Your task to perform on an android device: change the clock display to analog Image 0: 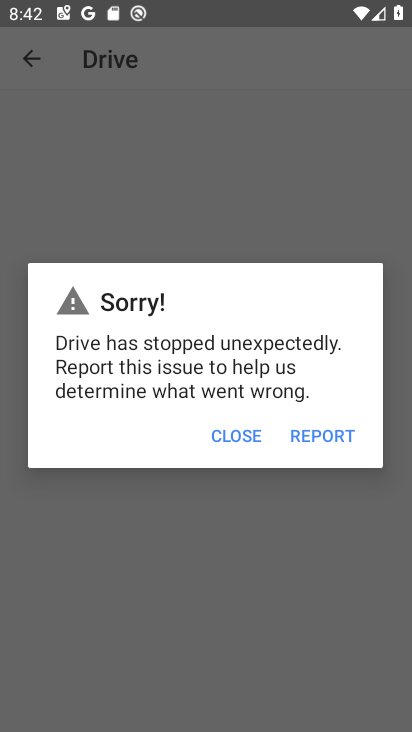
Step 0: click (261, 431)
Your task to perform on an android device: change the clock display to analog Image 1: 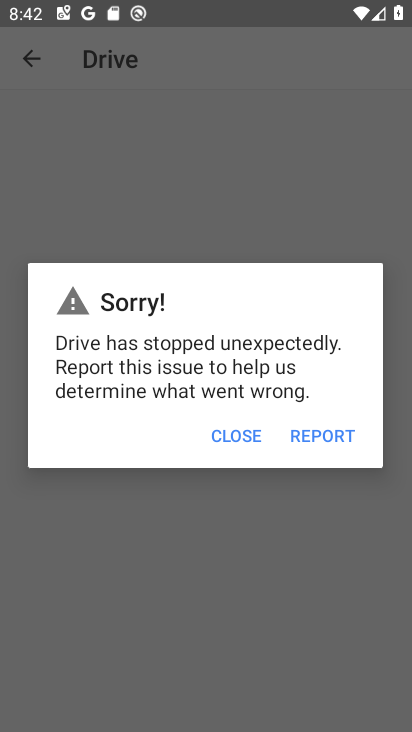
Step 1: click (260, 432)
Your task to perform on an android device: change the clock display to analog Image 2: 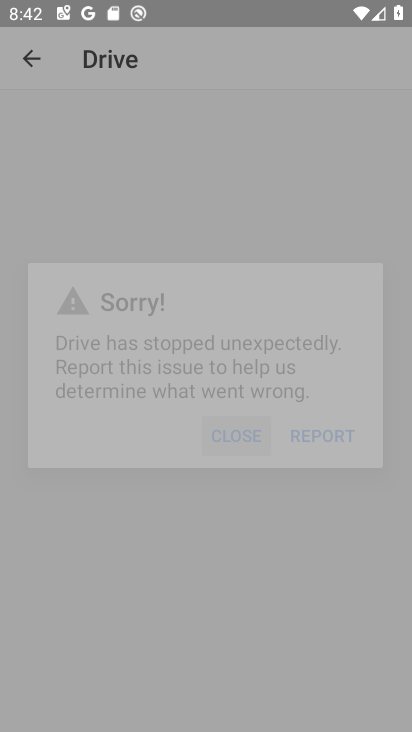
Step 2: click (260, 432)
Your task to perform on an android device: change the clock display to analog Image 3: 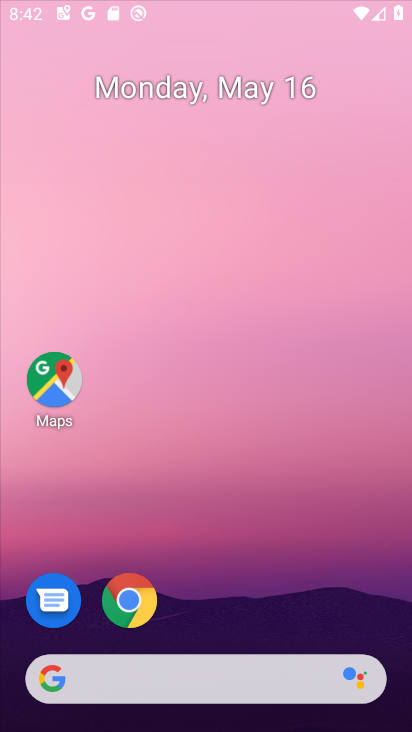
Step 3: click (259, 433)
Your task to perform on an android device: change the clock display to analog Image 4: 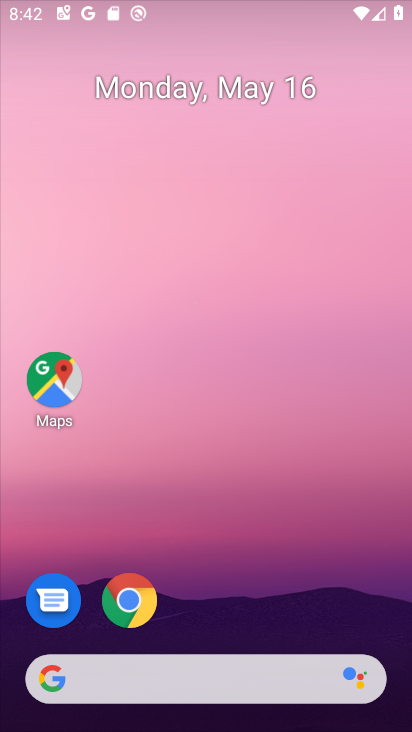
Step 4: drag from (274, 553) to (13, 109)
Your task to perform on an android device: change the clock display to analog Image 5: 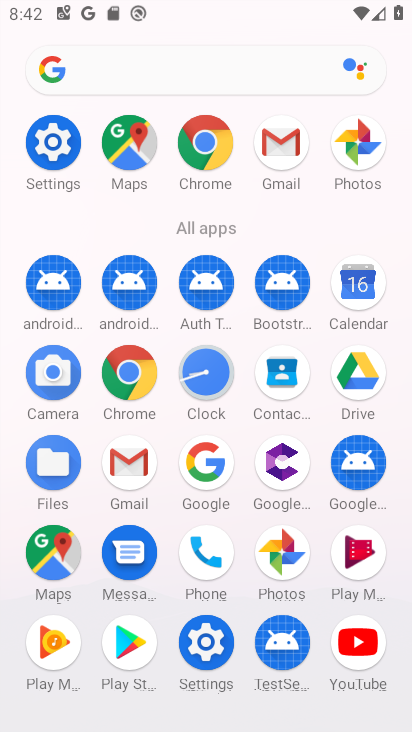
Step 5: click (201, 384)
Your task to perform on an android device: change the clock display to analog Image 6: 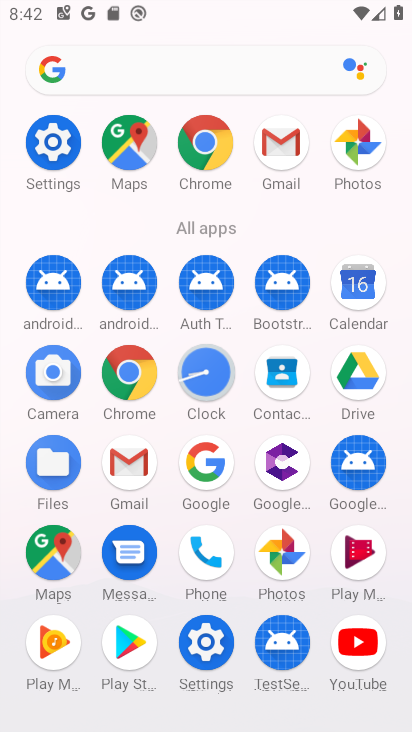
Step 6: click (203, 383)
Your task to perform on an android device: change the clock display to analog Image 7: 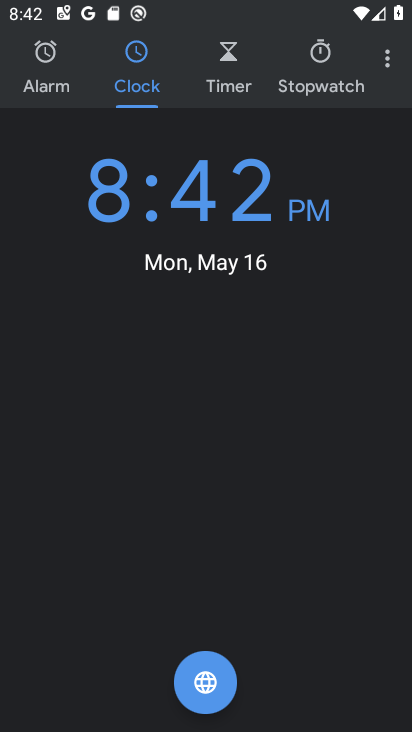
Step 7: click (386, 54)
Your task to perform on an android device: change the clock display to analog Image 8: 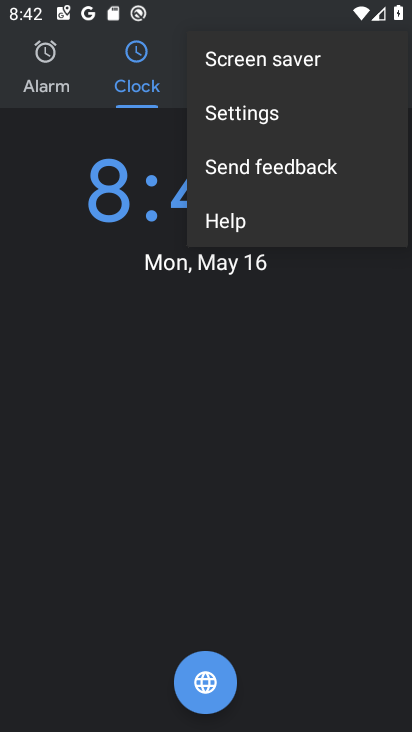
Step 8: click (240, 106)
Your task to perform on an android device: change the clock display to analog Image 9: 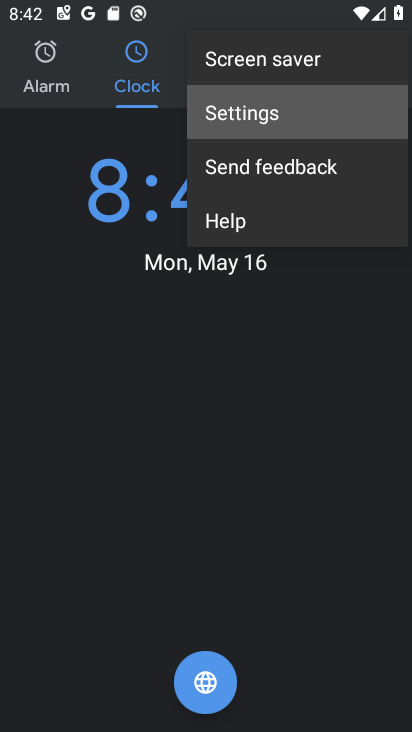
Step 9: click (251, 123)
Your task to perform on an android device: change the clock display to analog Image 10: 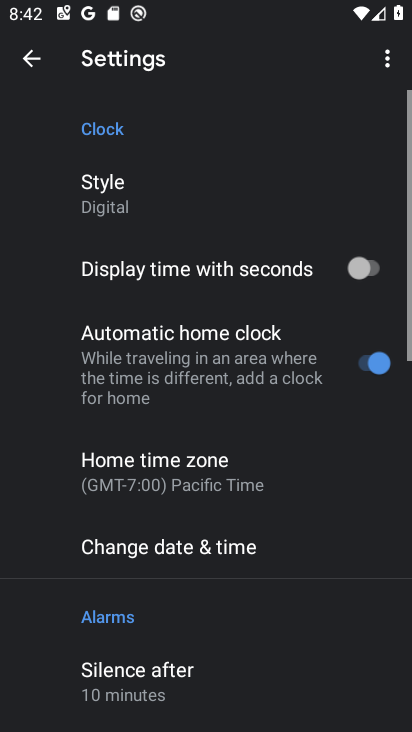
Step 10: click (251, 123)
Your task to perform on an android device: change the clock display to analog Image 11: 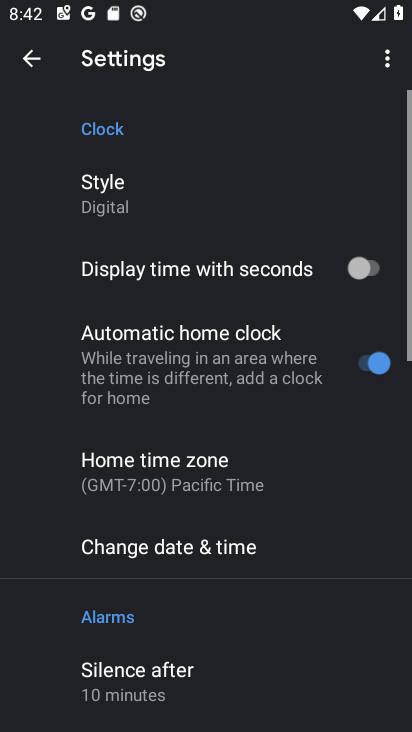
Step 11: click (150, 178)
Your task to perform on an android device: change the clock display to analog Image 12: 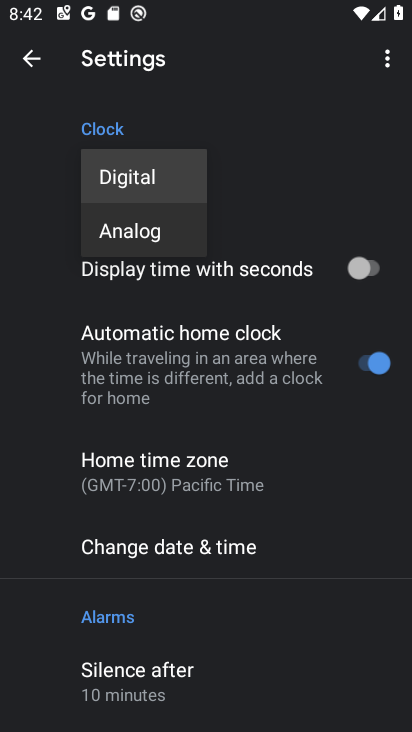
Step 12: click (134, 252)
Your task to perform on an android device: change the clock display to analog Image 13: 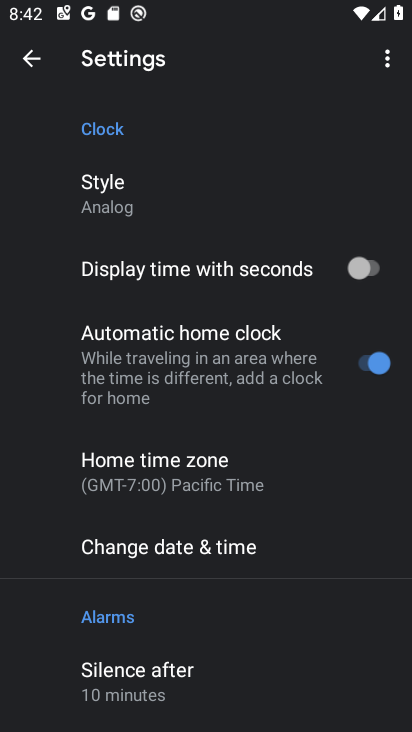
Step 13: task complete